Your task to perform on an android device: Search for vegetarian restaurants on Maps Image 0: 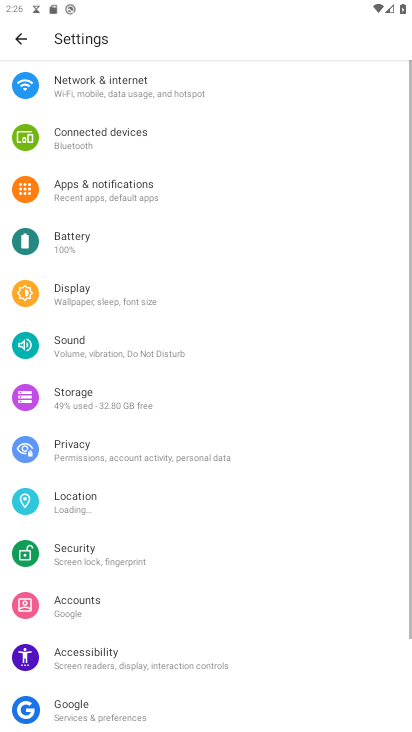
Step 0: press home button
Your task to perform on an android device: Search for vegetarian restaurants on Maps Image 1: 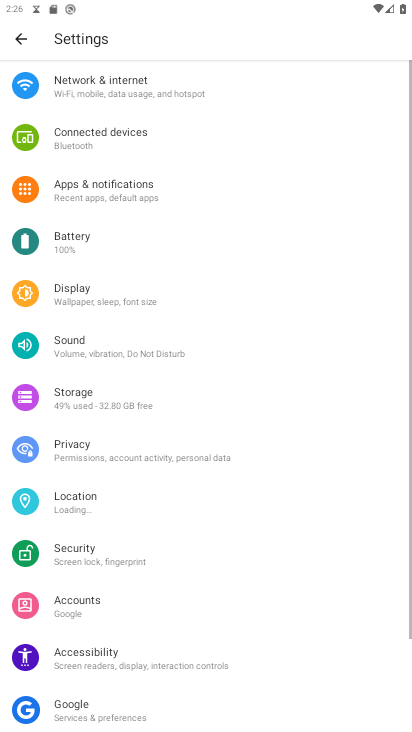
Step 1: press home button
Your task to perform on an android device: Search for vegetarian restaurants on Maps Image 2: 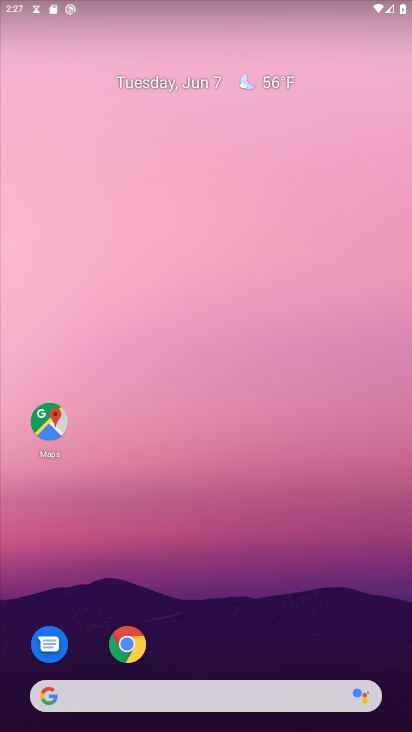
Step 2: click (49, 420)
Your task to perform on an android device: Search for vegetarian restaurants on Maps Image 3: 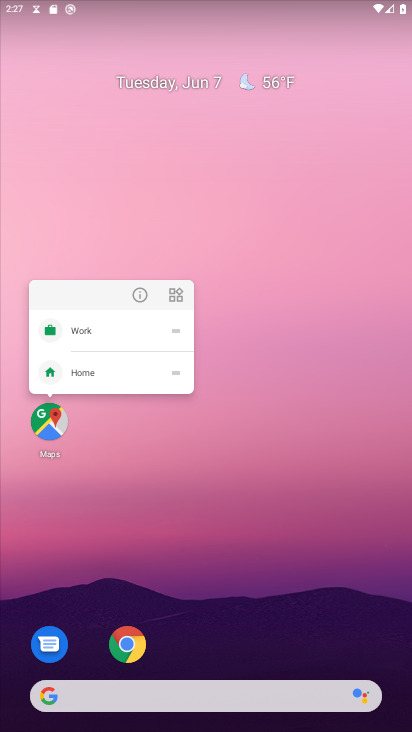
Step 3: click (49, 419)
Your task to perform on an android device: Search for vegetarian restaurants on Maps Image 4: 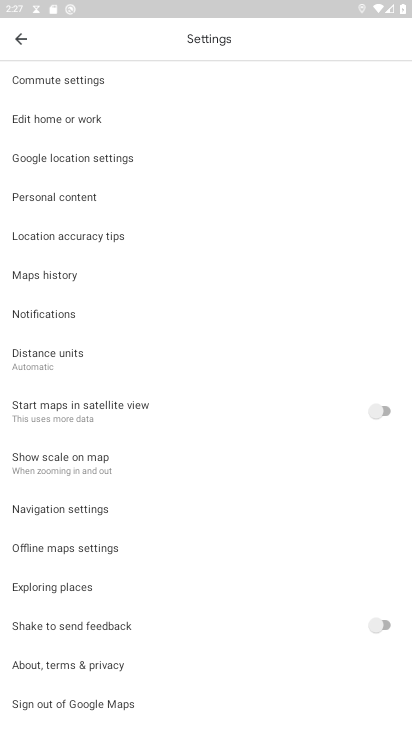
Step 4: click (13, 36)
Your task to perform on an android device: Search for vegetarian restaurants on Maps Image 5: 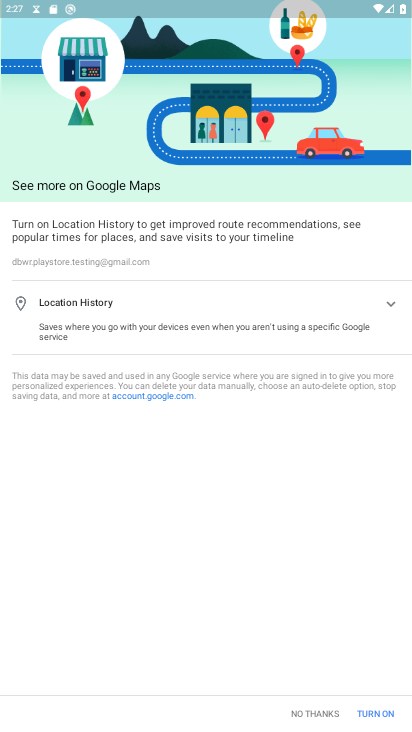
Step 5: click (371, 709)
Your task to perform on an android device: Search for vegetarian restaurants on Maps Image 6: 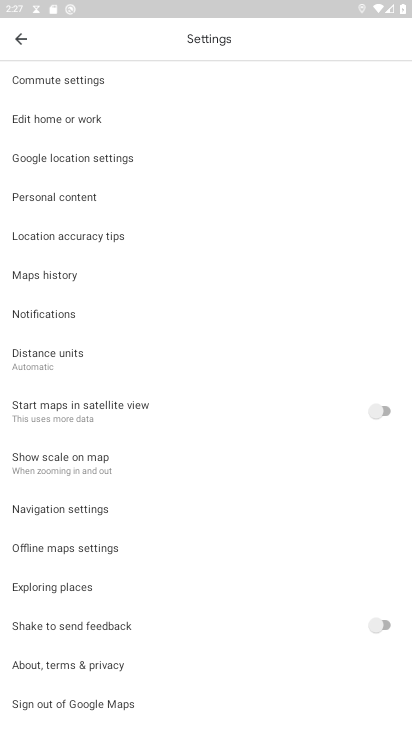
Step 6: click (19, 37)
Your task to perform on an android device: Search for vegetarian restaurants on Maps Image 7: 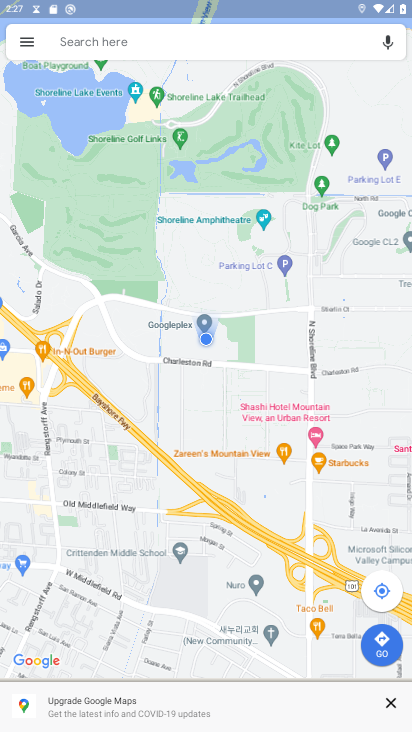
Step 7: click (137, 41)
Your task to perform on an android device: Search for vegetarian restaurants on Maps Image 8: 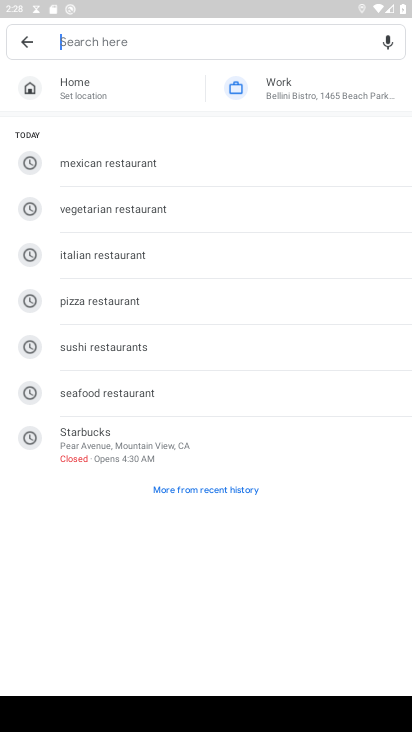
Step 8: click (106, 205)
Your task to perform on an android device: Search for vegetarian restaurants on Maps Image 9: 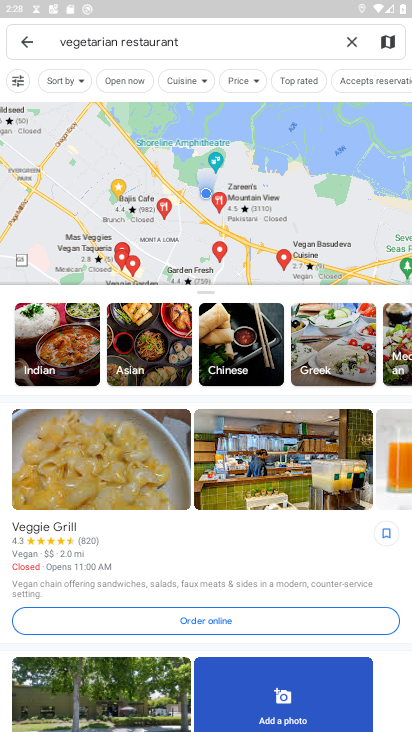
Step 9: click (187, 552)
Your task to perform on an android device: Search for vegetarian restaurants on Maps Image 10: 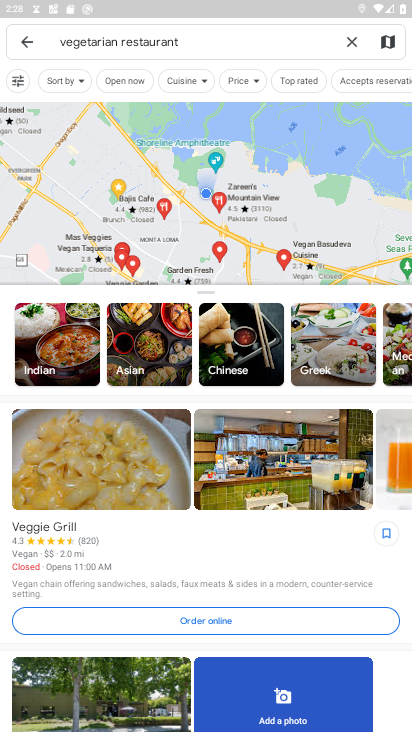
Step 10: task complete